Your task to perform on an android device: Add panasonic triple a to the cart on amazon Image 0: 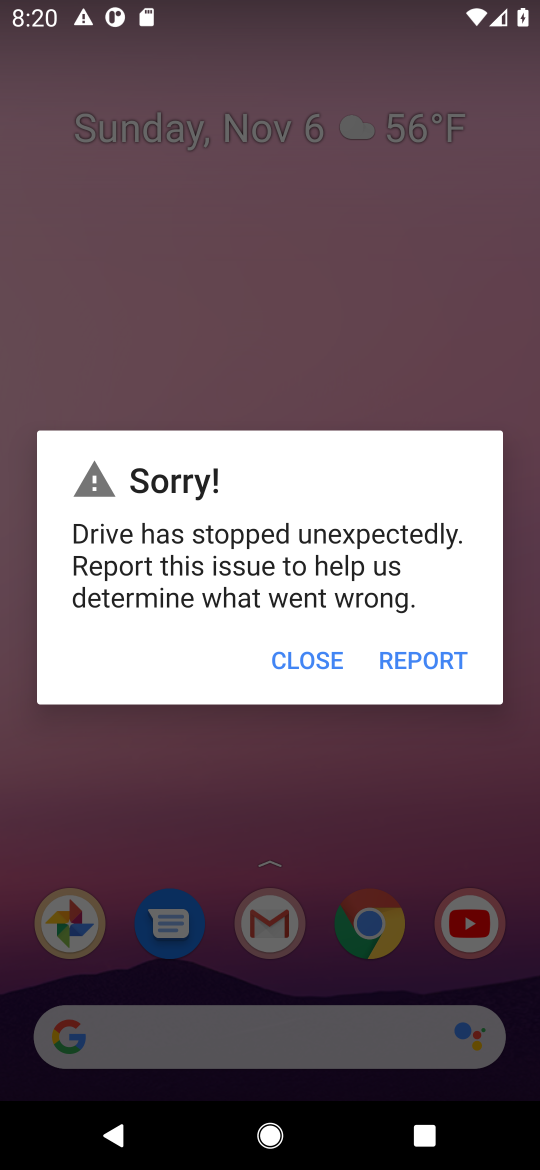
Step 0: press home button
Your task to perform on an android device: Add panasonic triple a to the cart on amazon Image 1: 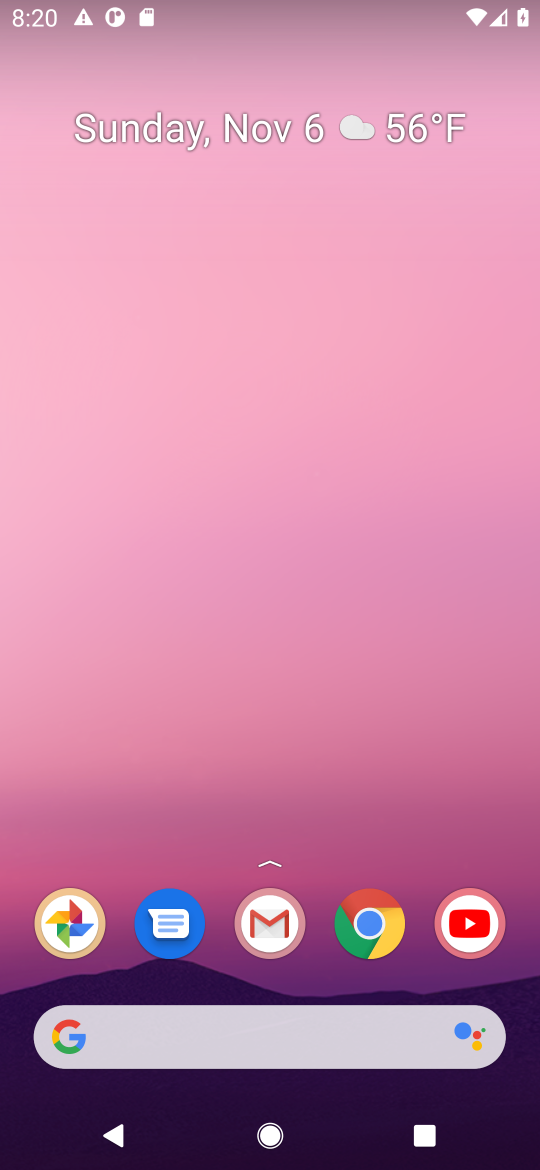
Step 1: click (368, 937)
Your task to perform on an android device: Add panasonic triple a to the cart on amazon Image 2: 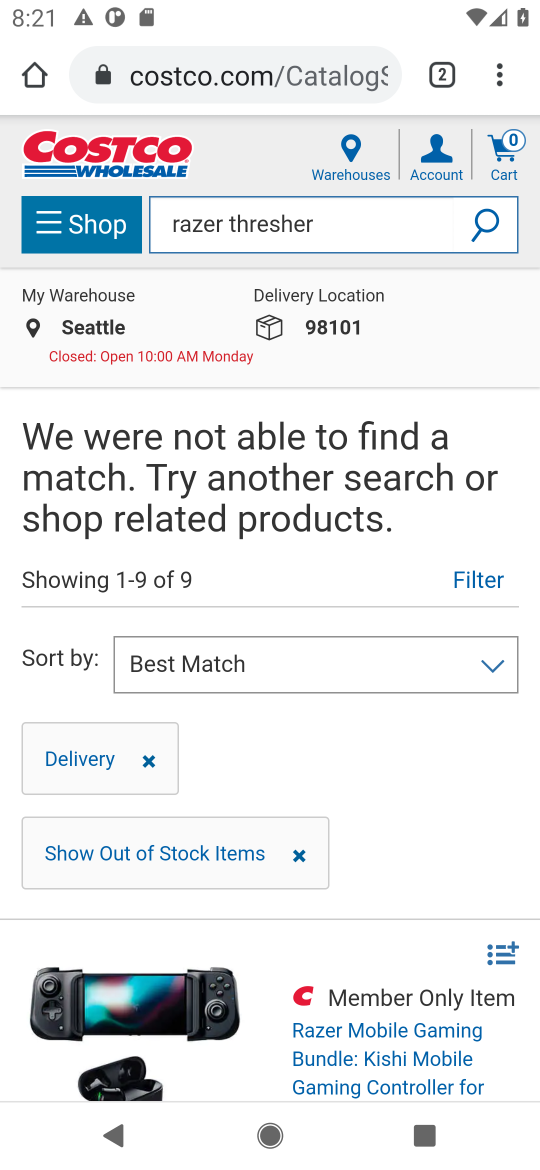
Step 2: click (222, 73)
Your task to perform on an android device: Add panasonic triple a to the cart on amazon Image 3: 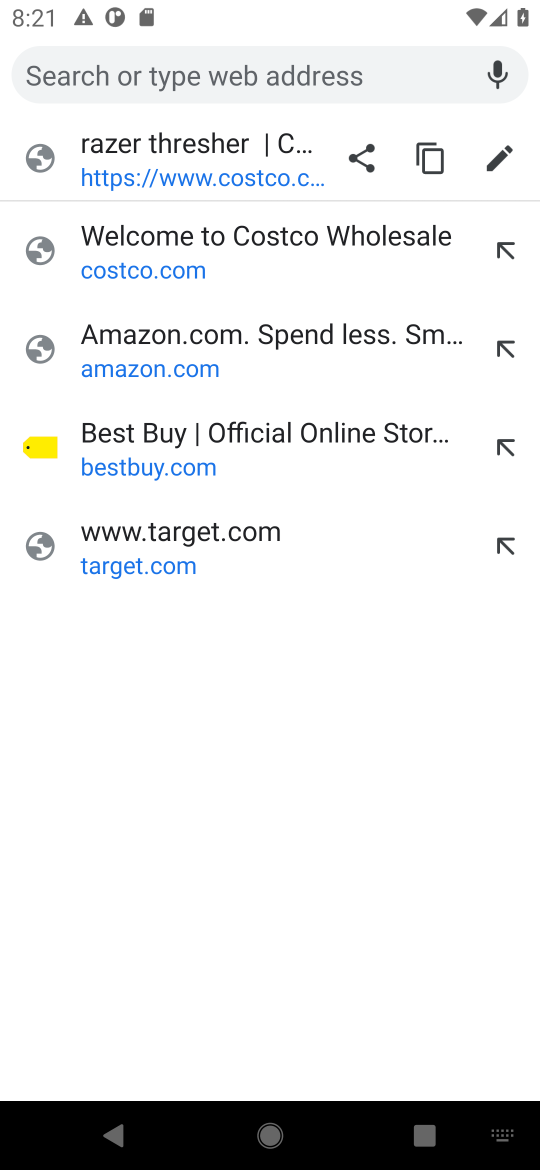
Step 3: click (156, 378)
Your task to perform on an android device: Add panasonic triple a to the cart on amazon Image 4: 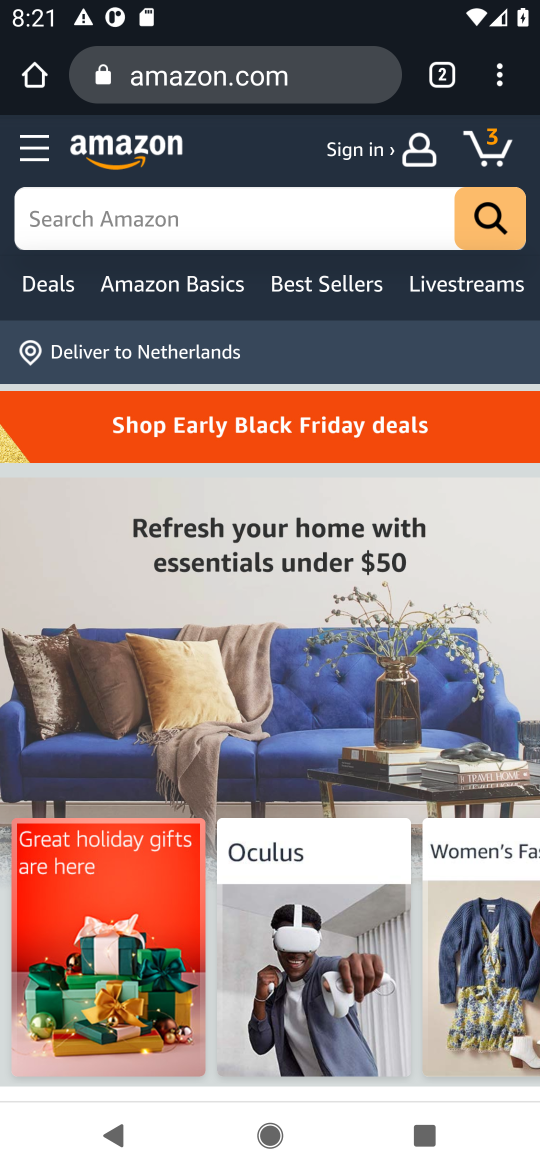
Step 4: click (109, 222)
Your task to perform on an android device: Add panasonic triple a to the cart on amazon Image 5: 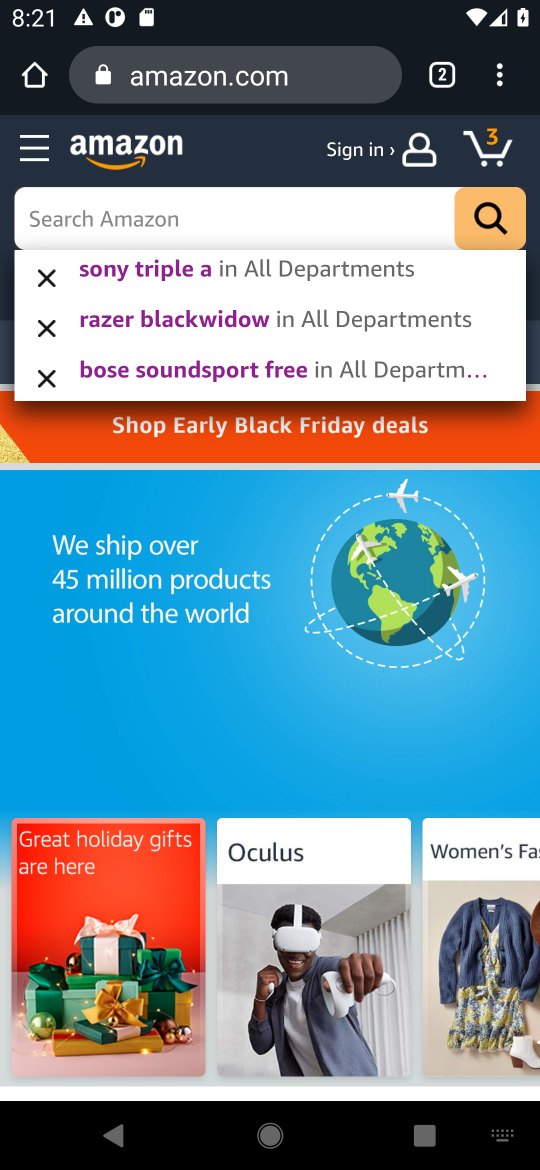
Step 5: type "panasonic triple a"
Your task to perform on an android device: Add panasonic triple a to the cart on amazon Image 6: 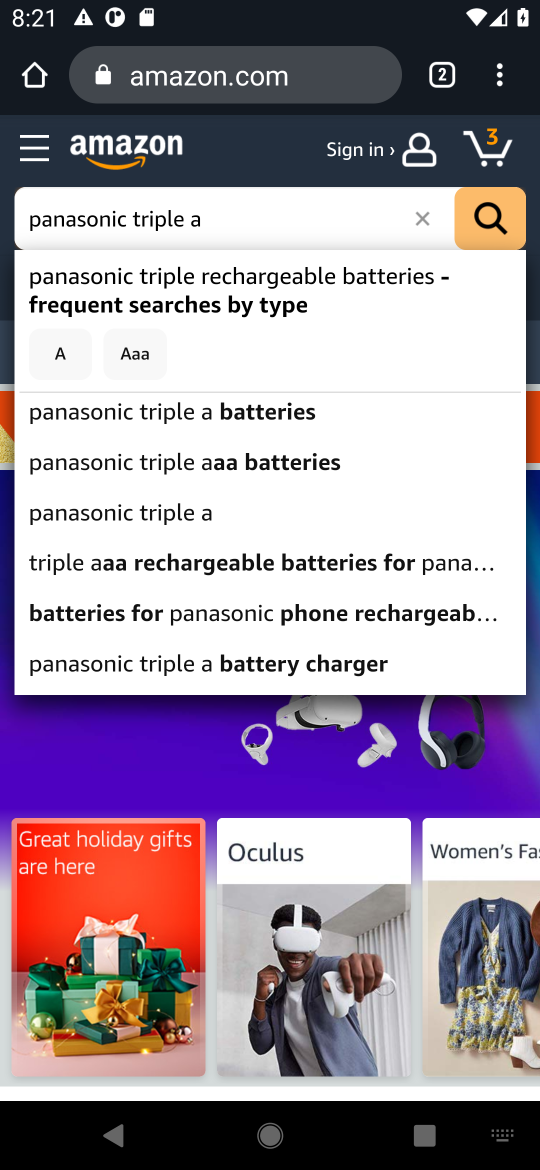
Step 6: click (161, 511)
Your task to perform on an android device: Add panasonic triple a to the cart on amazon Image 7: 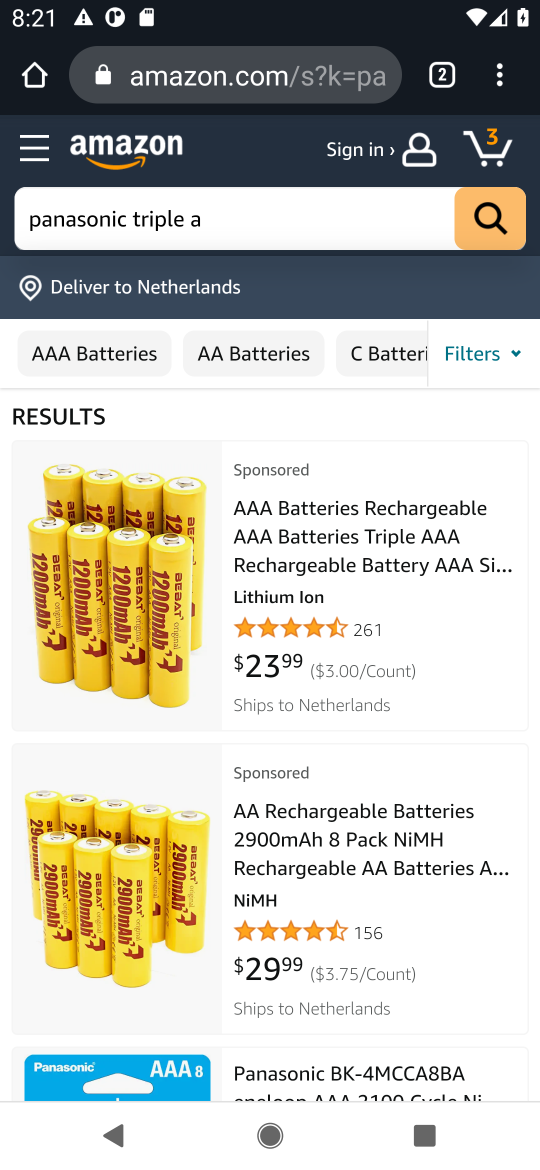
Step 7: drag from (211, 860) to (217, 429)
Your task to perform on an android device: Add panasonic triple a to the cart on amazon Image 8: 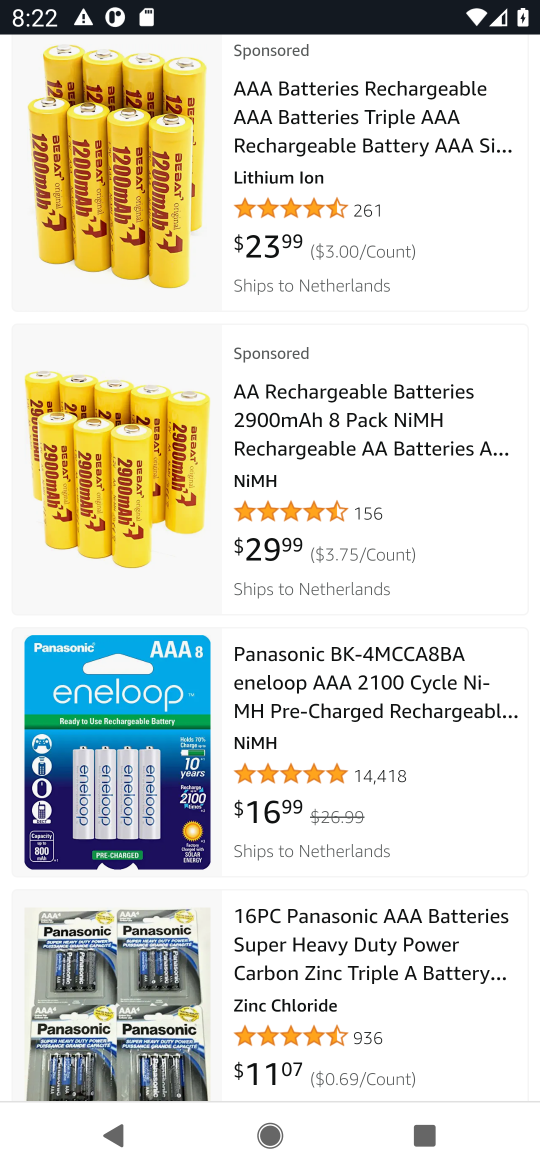
Step 8: drag from (150, 746) to (153, 399)
Your task to perform on an android device: Add panasonic triple a to the cart on amazon Image 9: 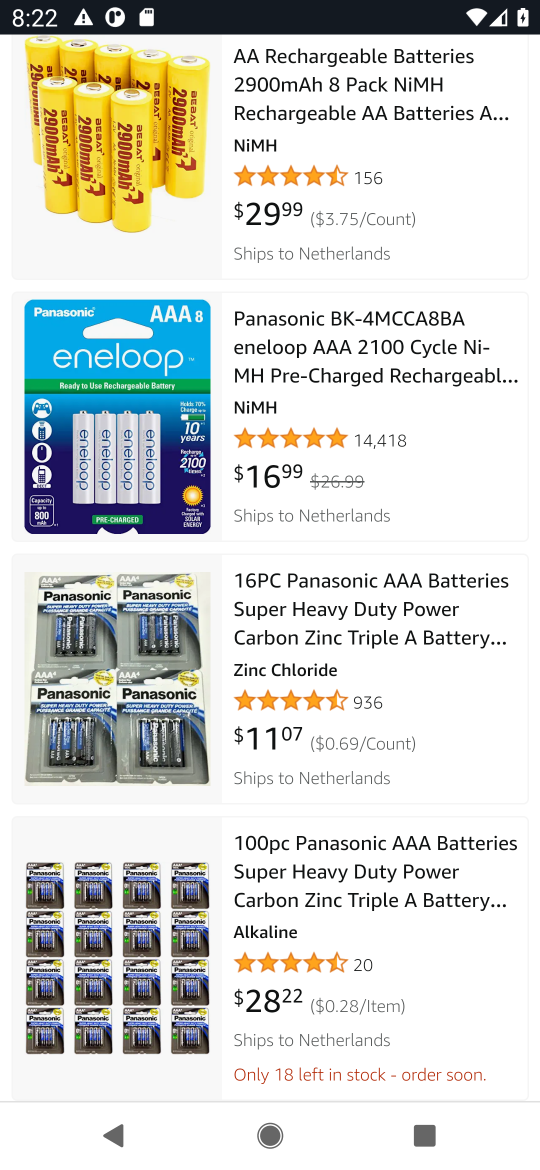
Step 9: click (151, 435)
Your task to perform on an android device: Add panasonic triple a to the cart on amazon Image 10: 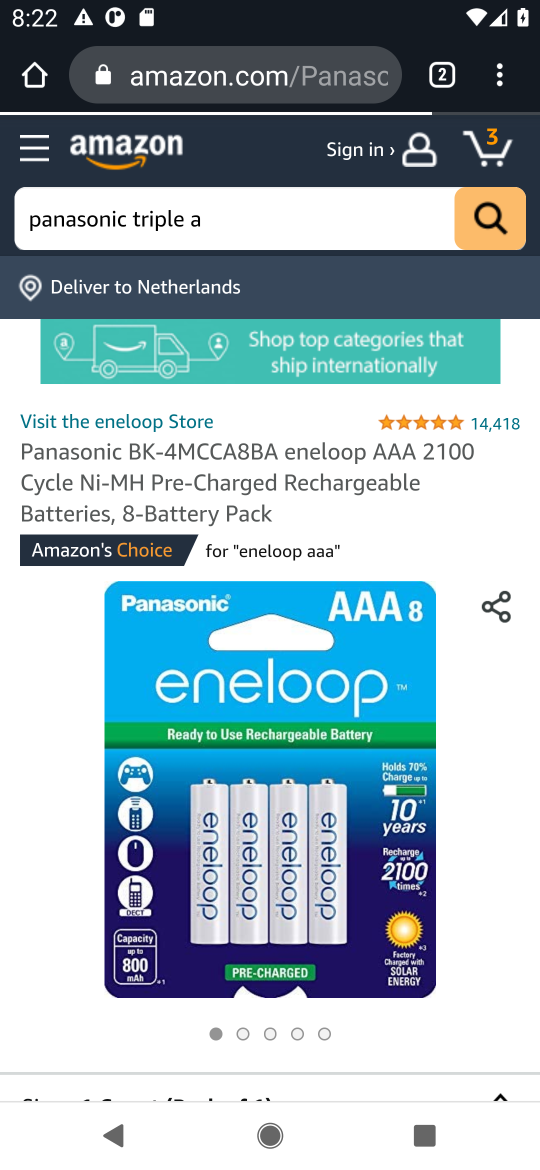
Step 10: drag from (260, 887) to (245, 211)
Your task to perform on an android device: Add panasonic triple a to the cart on amazon Image 11: 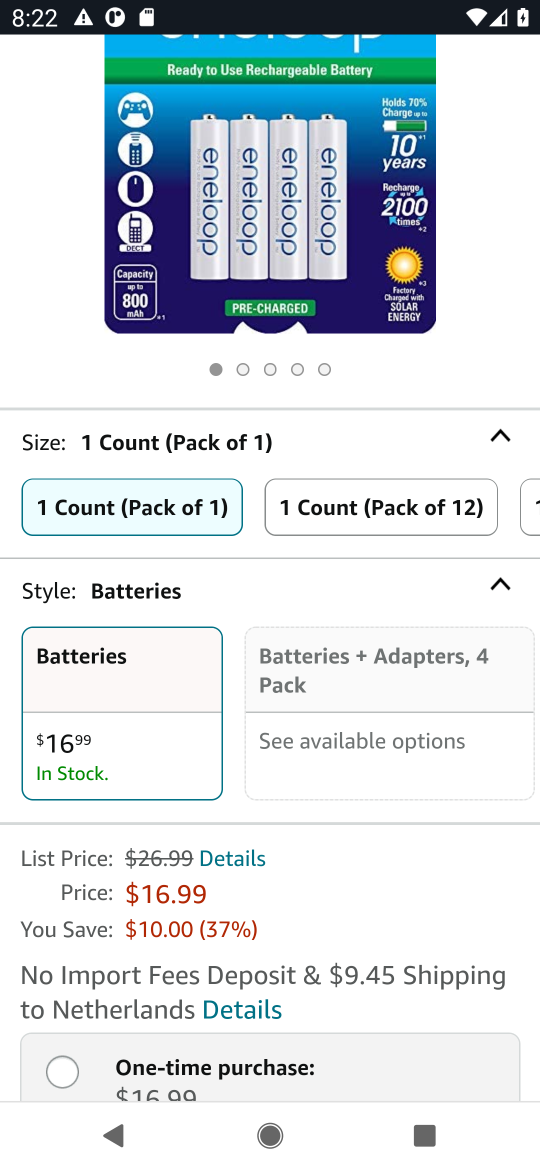
Step 11: drag from (289, 891) to (291, 399)
Your task to perform on an android device: Add panasonic triple a to the cart on amazon Image 12: 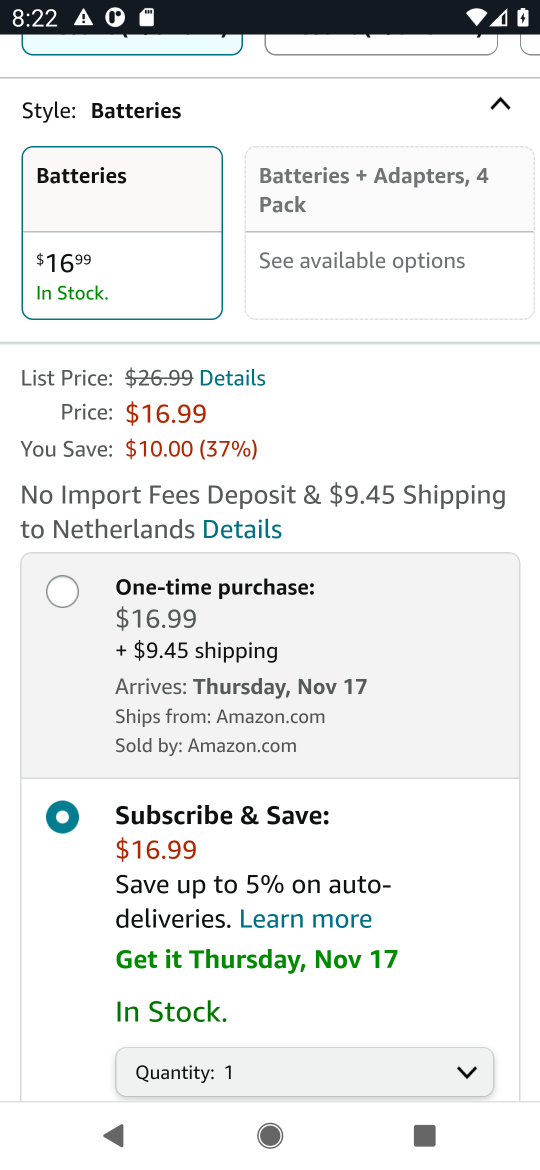
Step 12: click (49, 590)
Your task to perform on an android device: Add panasonic triple a to the cart on amazon Image 13: 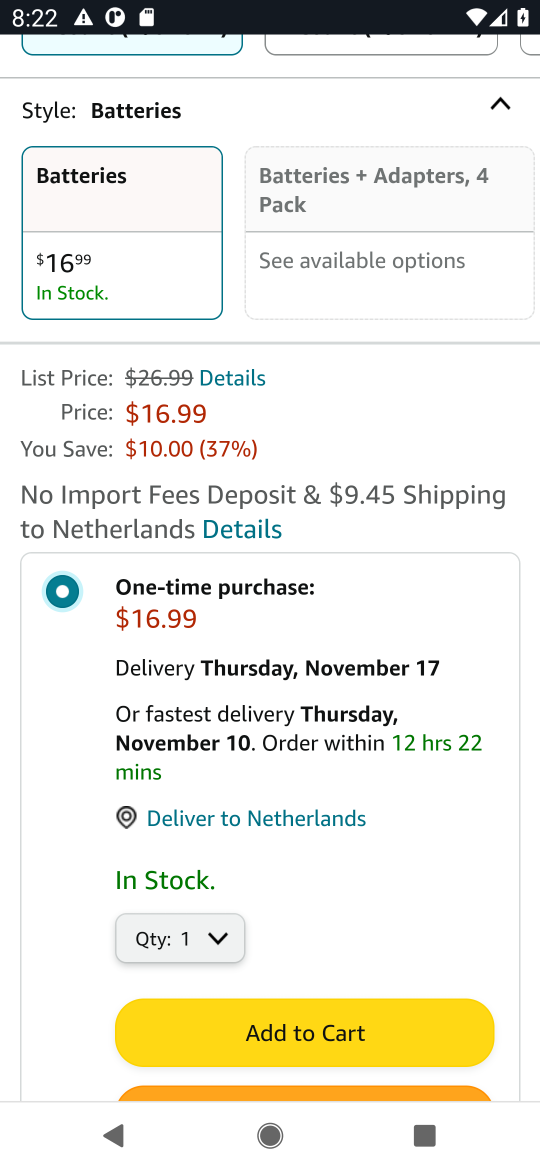
Step 13: click (291, 1031)
Your task to perform on an android device: Add panasonic triple a to the cart on amazon Image 14: 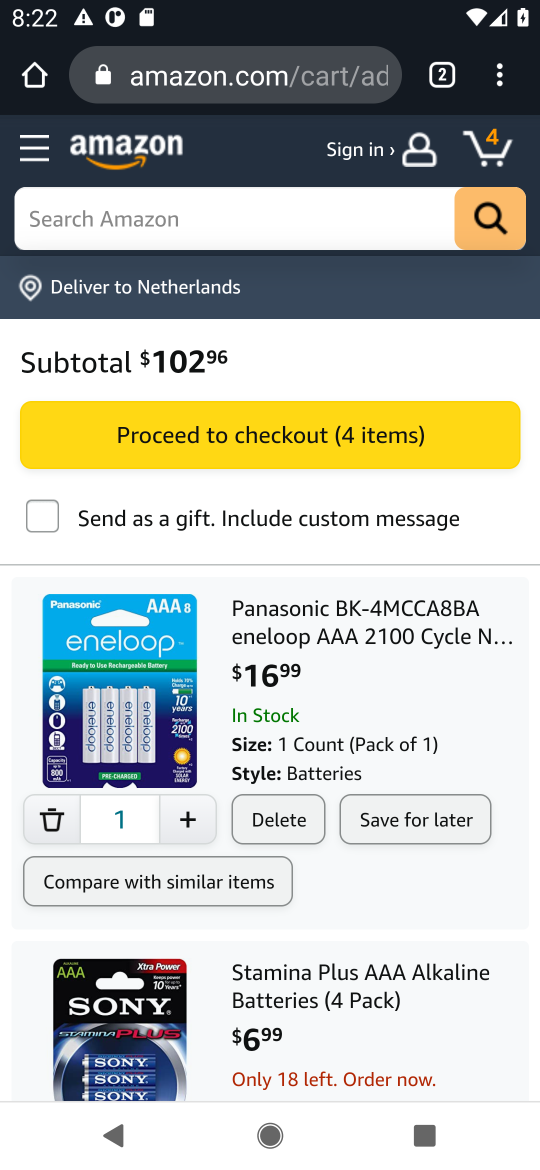
Step 14: task complete